Your task to perform on an android device: Set the phone to "Do not disturb". Image 0: 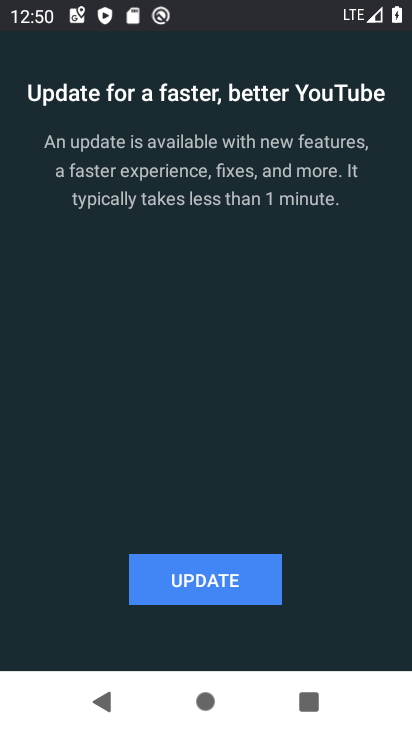
Step 0: press home button
Your task to perform on an android device: Set the phone to "Do not disturb". Image 1: 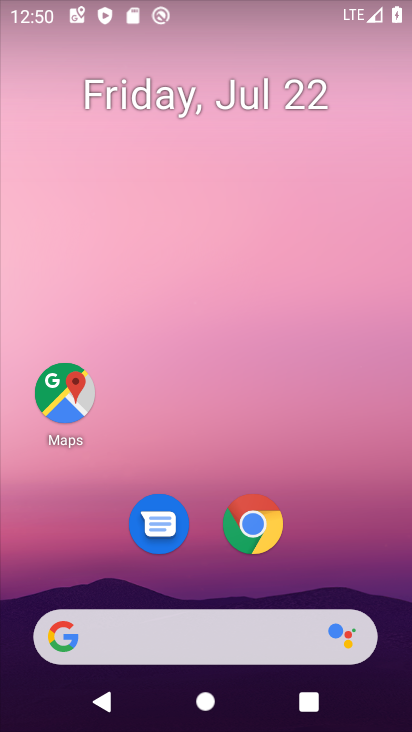
Step 1: drag from (341, 595) to (352, 66)
Your task to perform on an android device: Set the phone to "Do not disturb". Image 2: 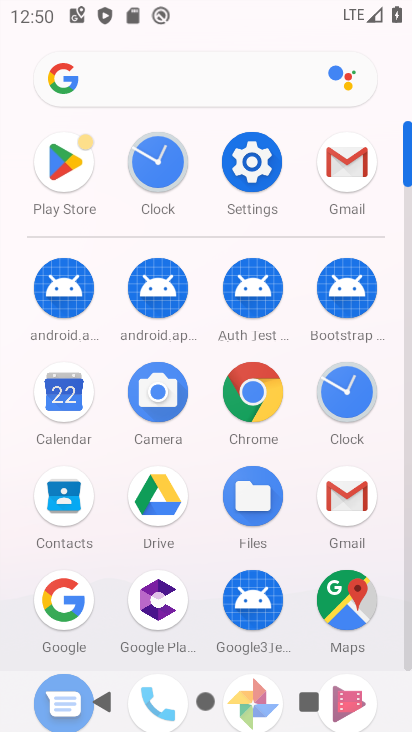
Step 2: click (253, 159)
Your task to perform on an android device: Set the phone to "Do not disturb". Image 3: 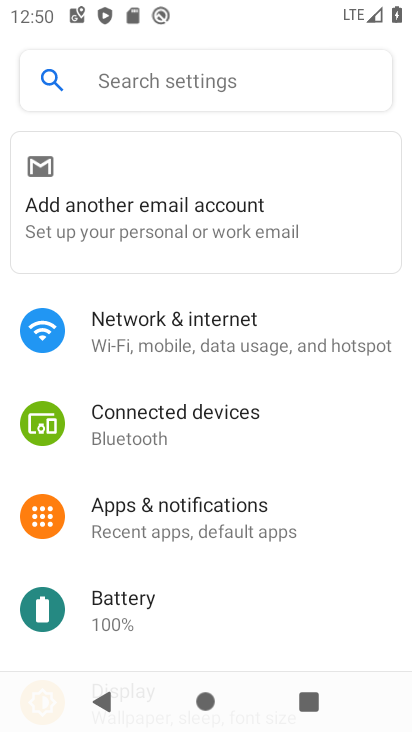
Step 3: drag from (248, 588) to (272, 113)
Your task to perform on an android device: Set the phone to "Do not disturb". Image 4: 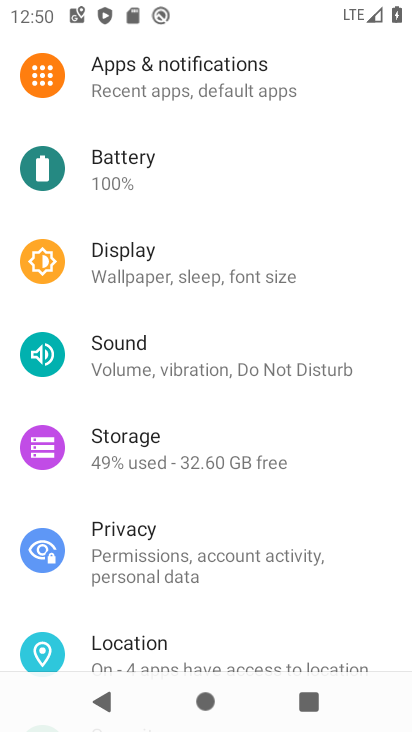
Step 4: click (229, 360)
Your task to perform on an android device: Set the phone to "Do not disturb". Image 5: 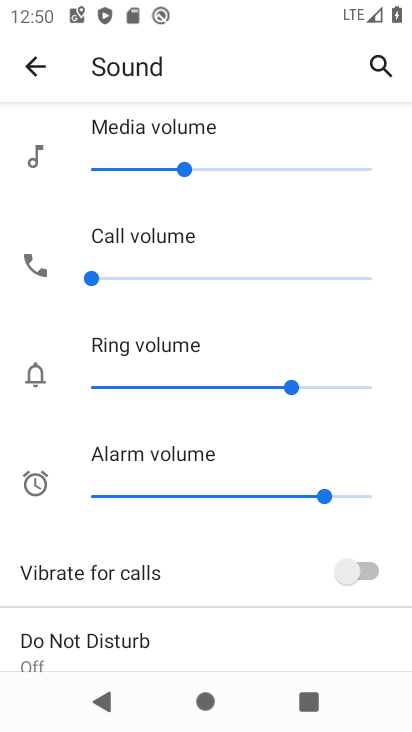
Step 5: drag from (198, 548) to (226, 292)
Your task to perform on an android device: Set the phone to "Do not disturb". Image 6: 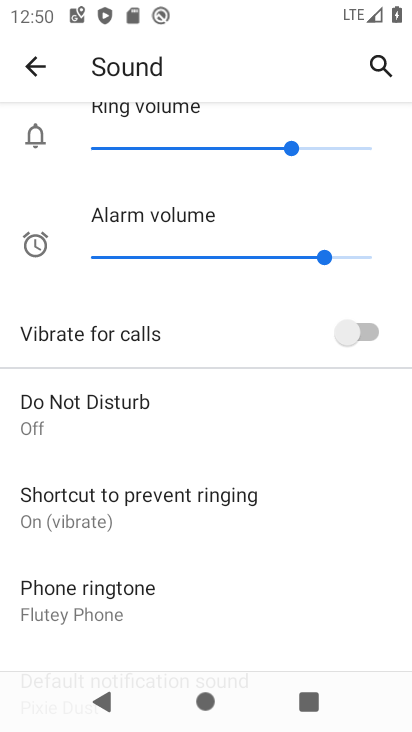
Step 6: click (56, 414)
Your task to perform on an android device: Set the phone to "Do not disturb". Image 7: 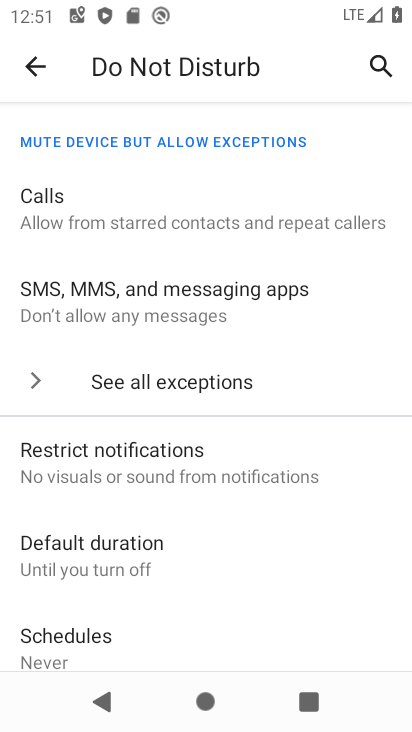
Step 7: drag from (169, 594) to (190, 357)
Your task to perform on an android device: Set the phone to "Do not disturb". Image 8: 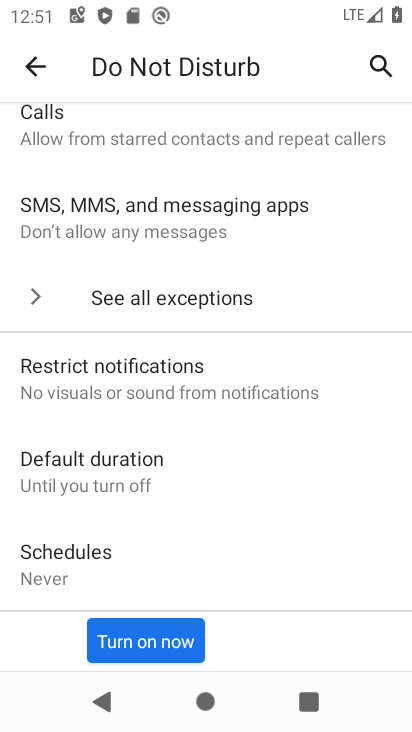
Step 8: click (169, 635)
Your task to perform on an android device: Set the phone to "Do not disturb". Image 9: 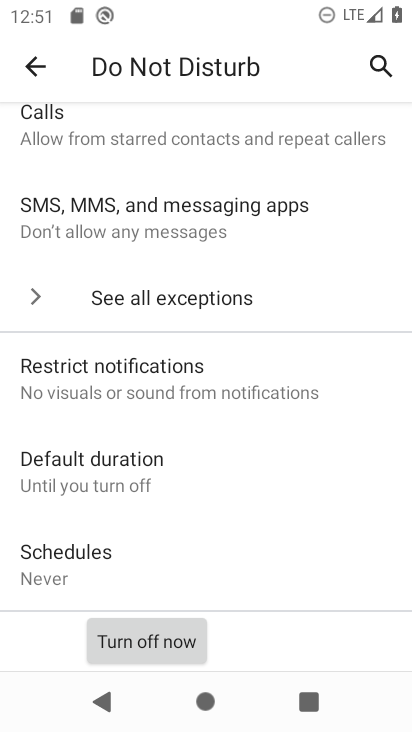
Step 9: click (39, 67)
Your task to perform on an android device: Set the phone to "Do not disturb". Image 10: 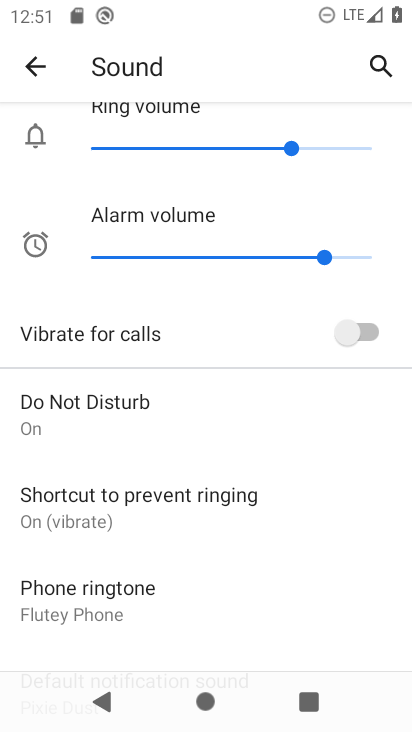
Step 10: task complete